Your task to perform on an android device: change the clock display to analog Image 0: 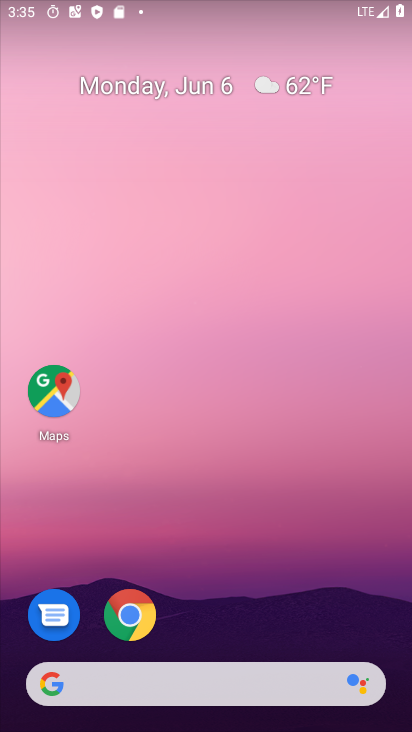
Step 0: drag from (267, 696) to (411, 276)
Your task to perform on an android device: change the clock display to analog Image 1: 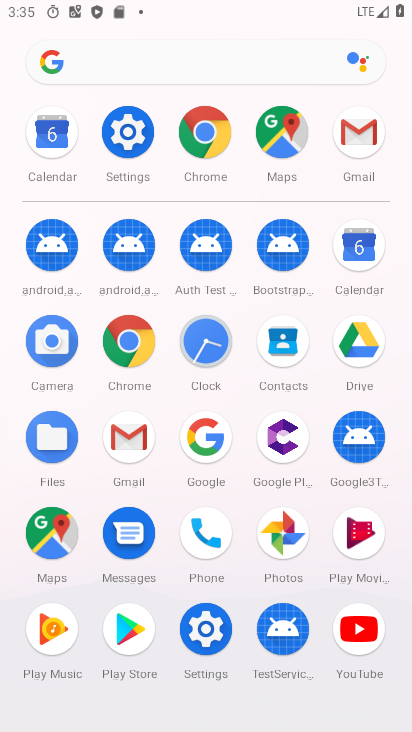
Step 1: click (212, 354)
Your task to perform on an android device: change the clock display to analog Image 2: 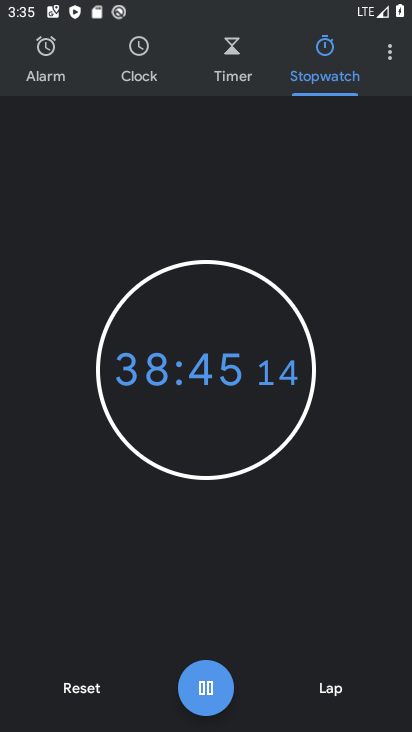
Step 2: drag from (396, 57) to (262, 110)
Your task to perform on an android device: change the clock display to analog Image 3: 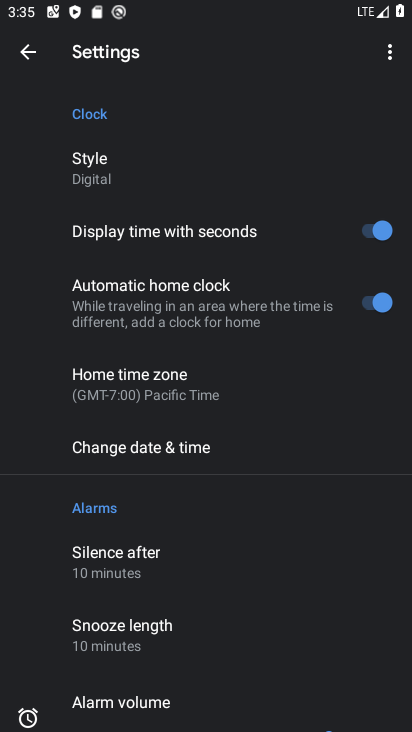
Step 3: click (156, 179)
Your task to perform on an android device: change the clock display to analog Image 4: 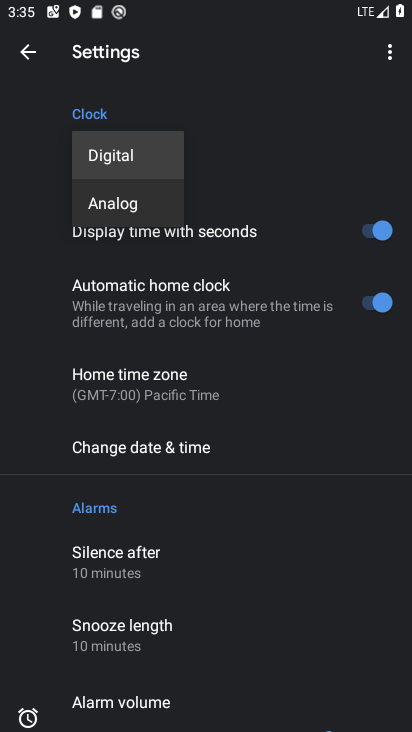
Step 4: click (134, 201)
Your task to perform on an android device: change the clock display to analog Image 5: 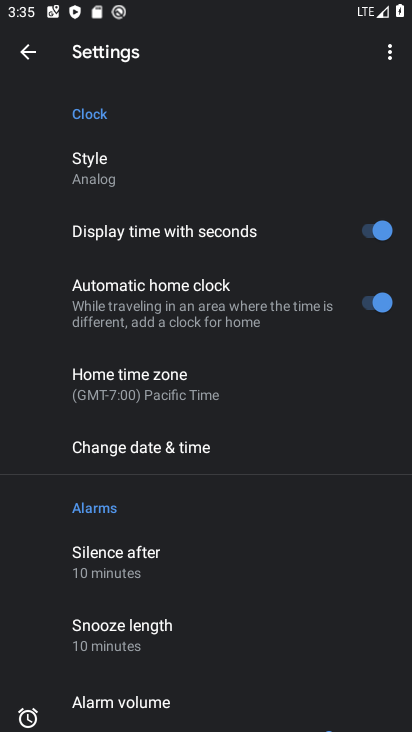
Step 5: task complete